Your task to perform on an android device: turn off improve location accuracy Image 0: 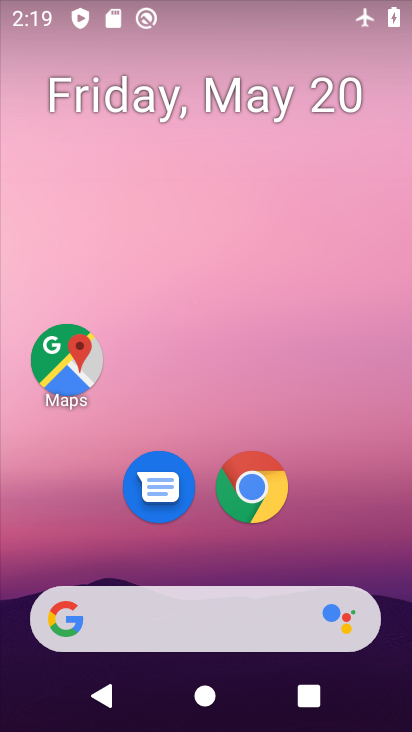
Step 0: drag from (243, 441) to (150, 64)
Your task to perform on an android device: turn off improve location accuracy Image 1: 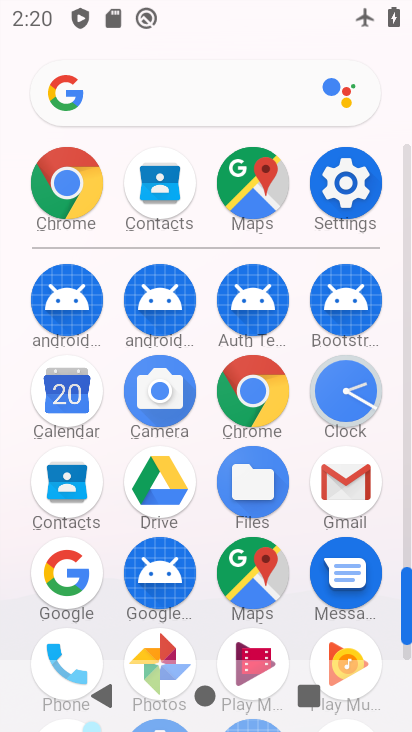
Step 1: click (335, 200)
Your task to perform on an android device: turn off improve location accuracy Image 2: 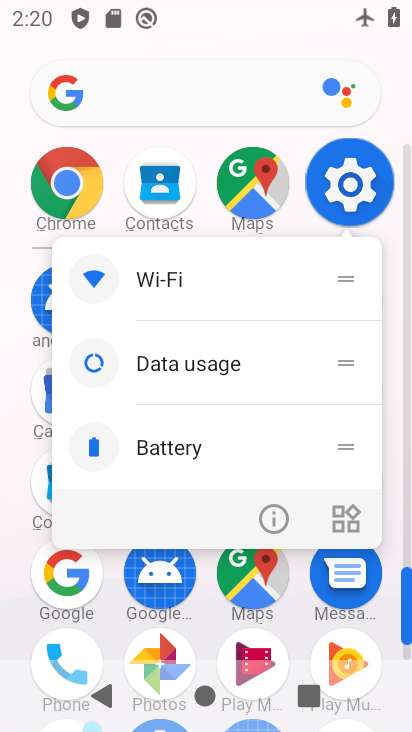
Step 2: click (340, 199)
Your task to perform on an android device: turn off improve location accuracy Image 3: 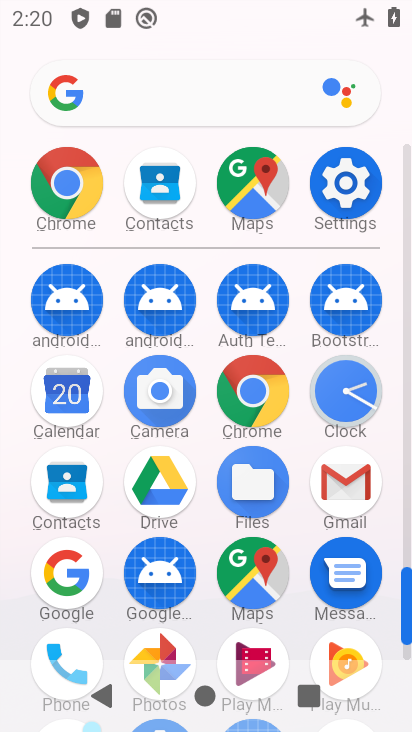
Step 3: click (337, 197)
Your task to perform on an android device: turn off improve location accuracy Image 4: 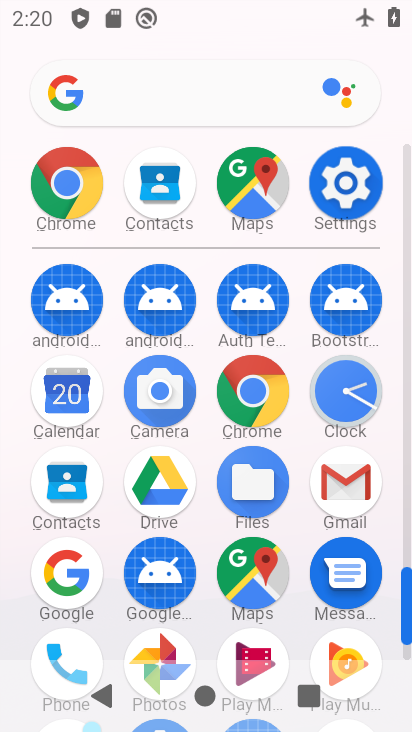
Step 4: click (335, 195)
Your task to perform on an android device: turn off improve location accuracy Image 5: 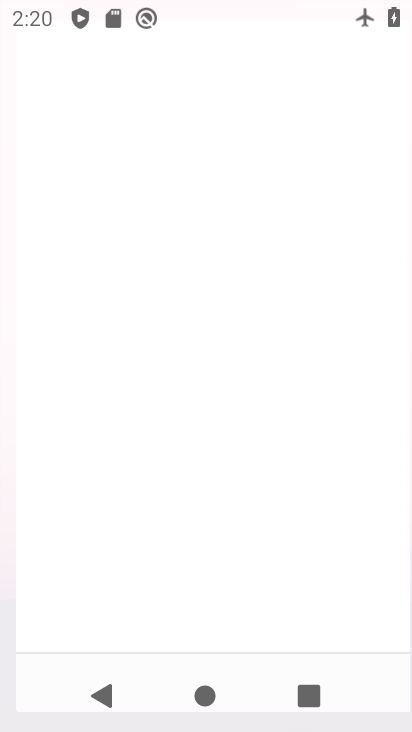
Step 5: click (335, 195)
Your task to perform on an android device: turn off improve location accuracy Image 6: 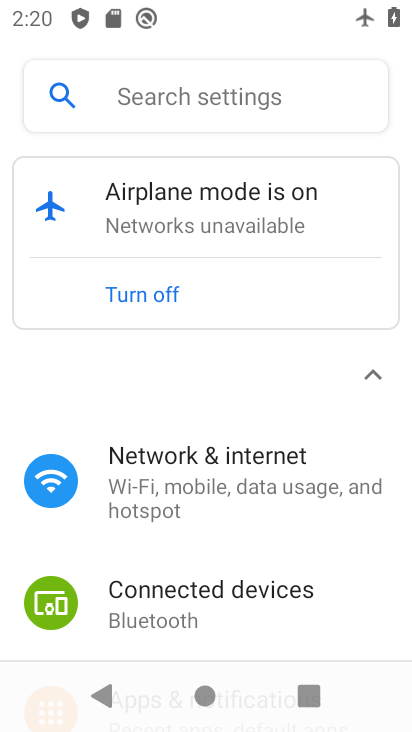
Step 6: drag from (222, 540) to (134, 30)
Your task to perform on an android device: turn off improve location accuracy Image 7: 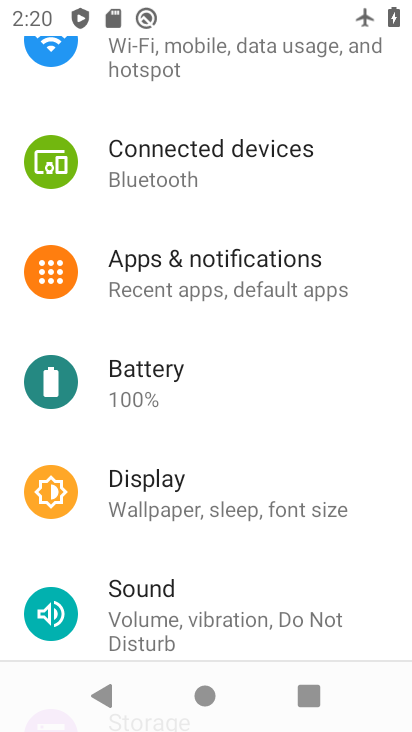
Step 7: drag from (196, 294) to (166, 14)
Your task to perform on an android device: turn off improve location accuracy Image 8: 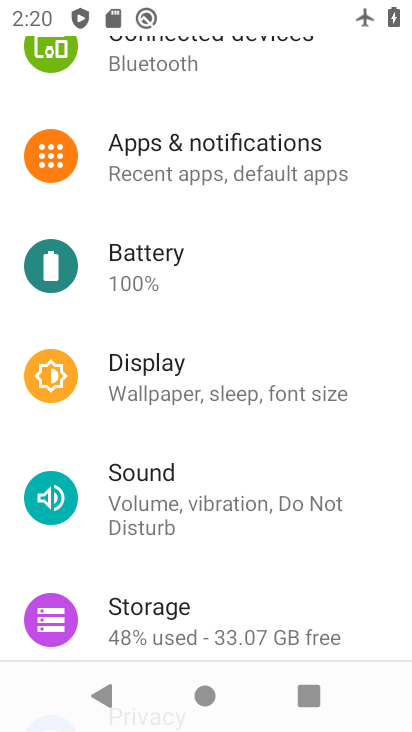
Step 8: drag from (59, 253) to (47, 178)
Your task to perform on an android device: turn off improve location accuracy Image 9: 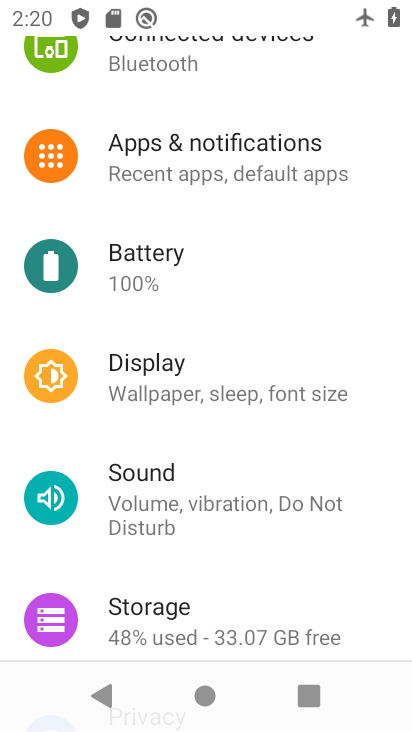
Step 9: drag from (212, 276) to (183, 21)
Your task to perform on an android device: turn off improve location accuracy Image 10: 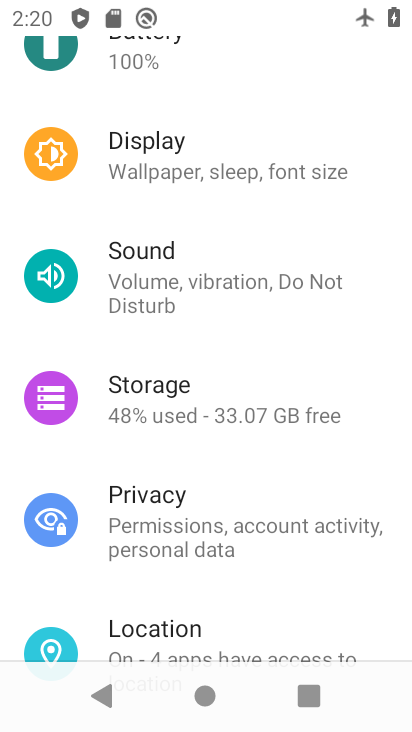
Step 10: drag from (266, 432) to (219, 197)
Your task to perform on an android device: turn off improve location accuracy Image 11: 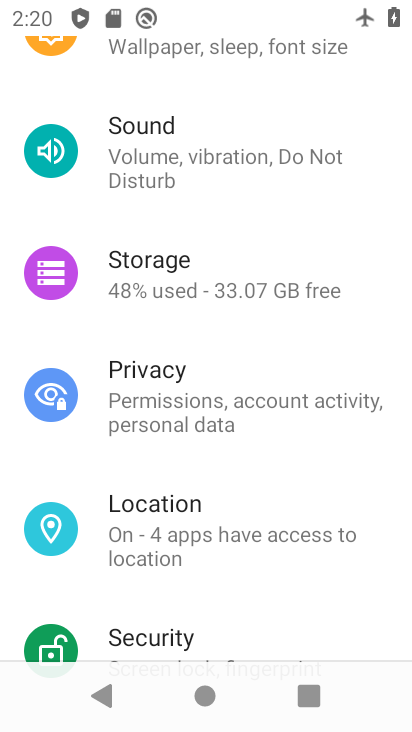
Step 11: drag from (246, 486) to (192, 53)
Your task to perform on an android device: turn off improve location accuracy Image 12: 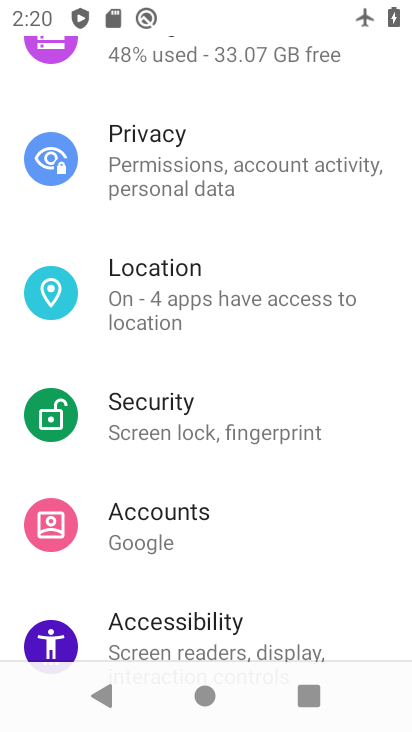
Step 12: drag from (165, 213) to (230, 486)
Your task to perform on an android device: turn off improve location accuracy Image 13: 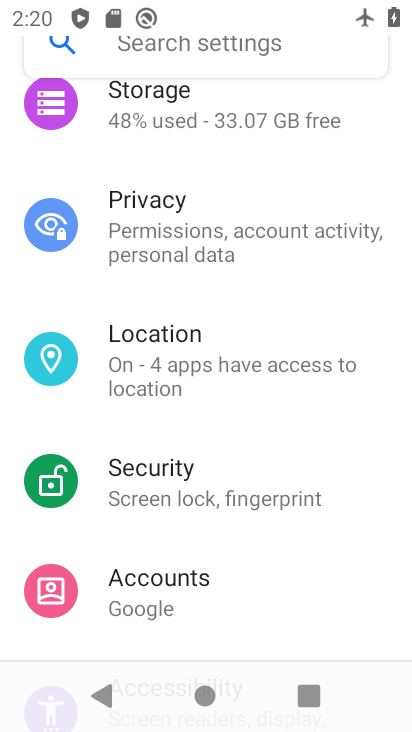
Step 13: drag from (200, 292) to (293, 637)
Your task to perform on an android device: turn off improve location accuracy Image 14: 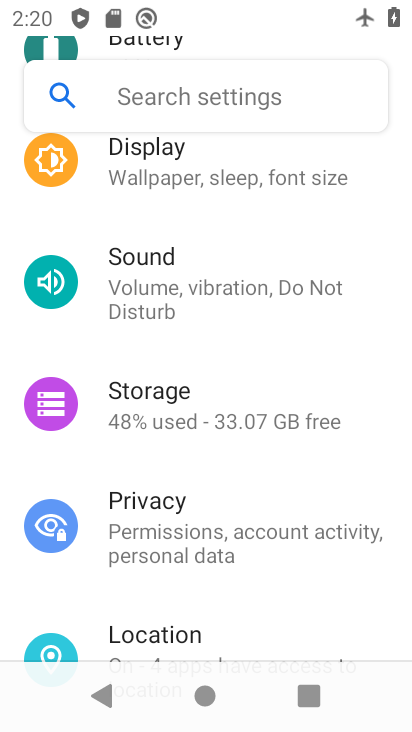
Step 14: drag from (157, 237) to (233, 627)
Your task to perform on an android device: turn off improve location accuracy Image 15: 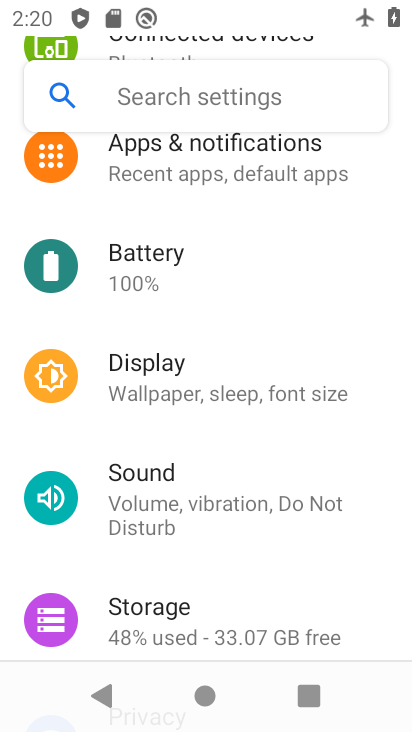
Step 15: drag from (161, 260) to (212, 505)
Your task to perform on an android device: turn off improve location accuracy Image 16: 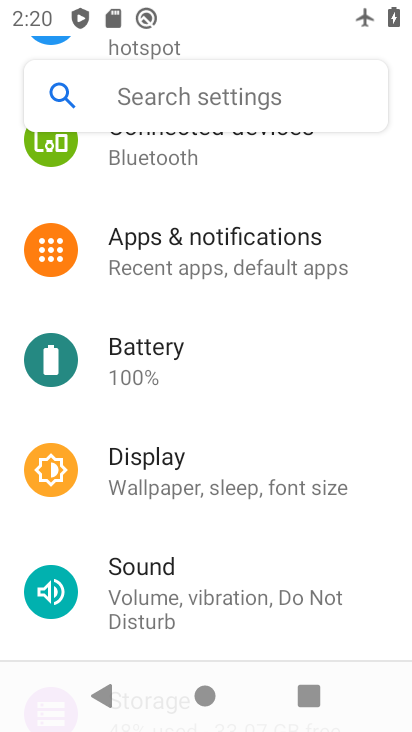
Step 16: drag from (189, 241) to (280, 603)
Your task to perform on an android device: turn off improve location accuracy Image 17: 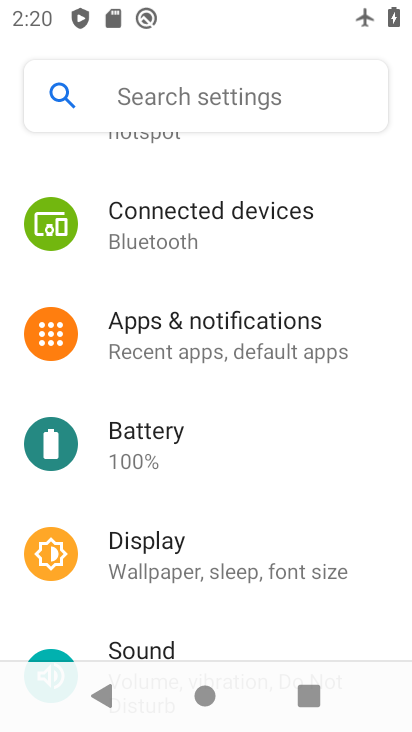
Step 17: drag from (212, 195) to (255, 539)
Your task to perform on an android device: turn off improve location accuracy Image 18: 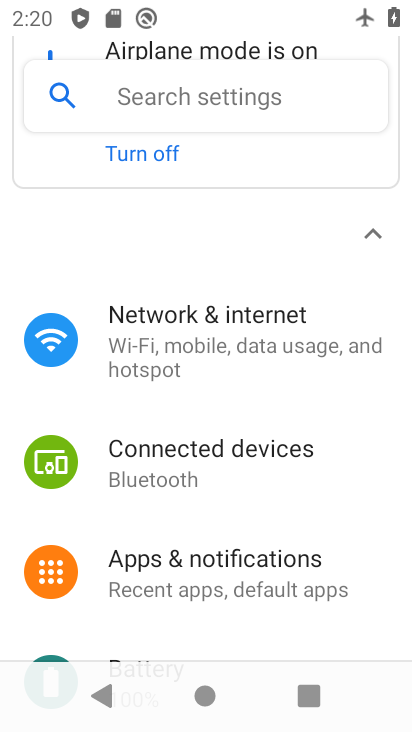
Step 18: drag from (197, 298) to (219, 540)
Your task to perform on an android device: turn off improve location accuracy Image 19: 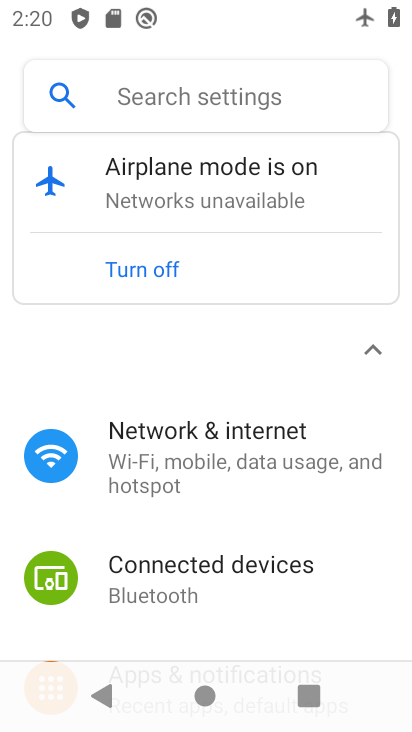
Step 19: drag from (95, 272) to (155, 524)
Your task to perform on an android device: turn off improve location accuracy Image 20: 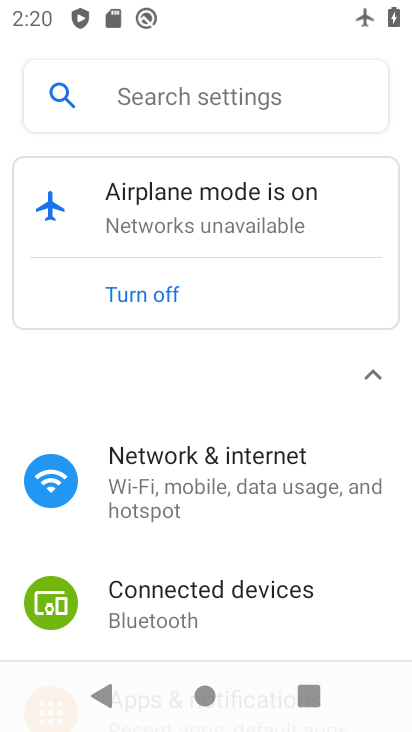
Step 20: drag from (185, 562) to (113, 91)
Your task to perform on an android device: turn off improve location accuracy Image 21: 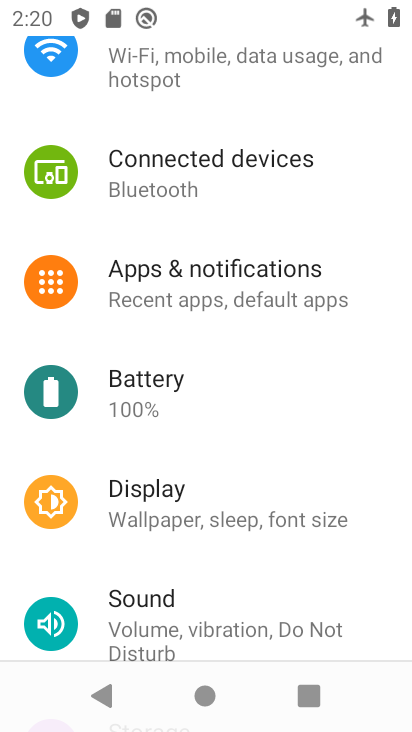
Step 21: drag from (187, 474) to (129, 32)
Your task to perform on an android device: turn off improve location accuracy Image 22: 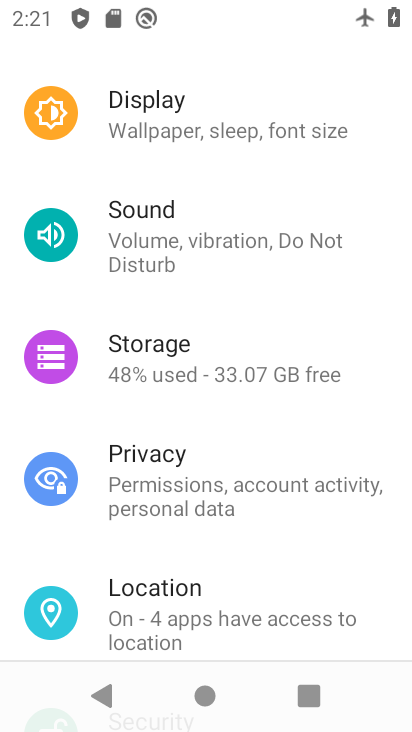
Step 22: click (164, 594)
Your task to perform on an android device: turn off improve location accuracy Image 23: 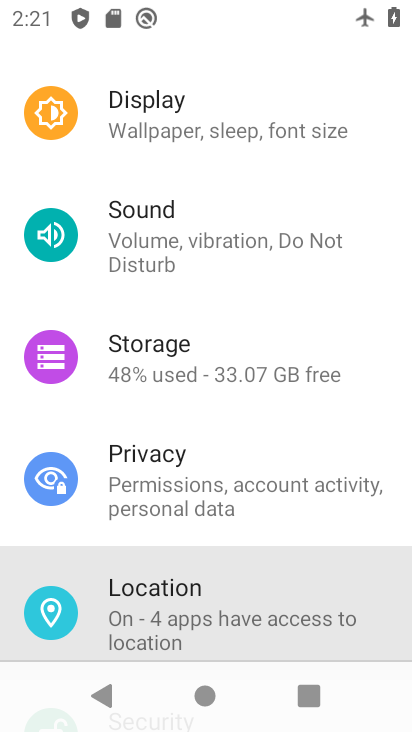
Step 23: click (164, 594)
Your task to perform on an android device: turn off improve location accuracy Image 24: 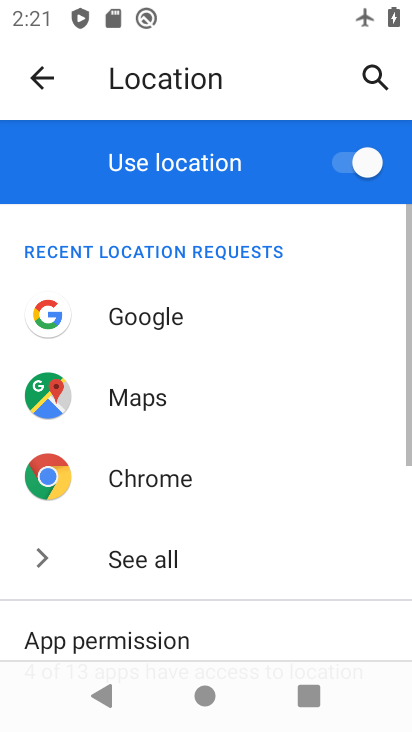
Step 24: drag from (203, 530) to (170, 162)
Your task to perform on an android device: turn off improve location accuracy Image 25: 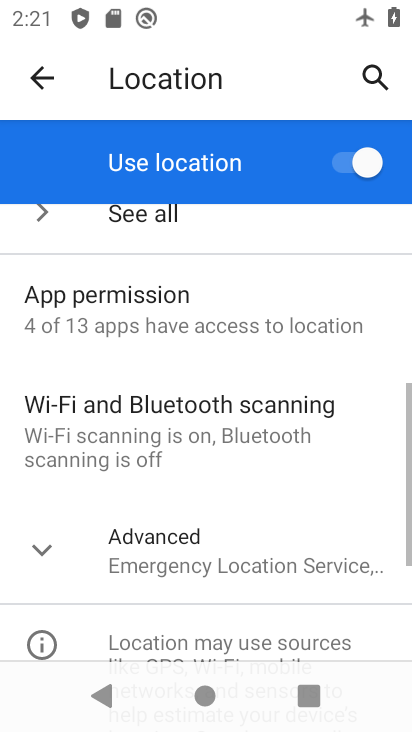
Step 25: drag from (199, 448) to (171, 86)
Your task to perform on an android device: turn off improve location accuracy Image 26: 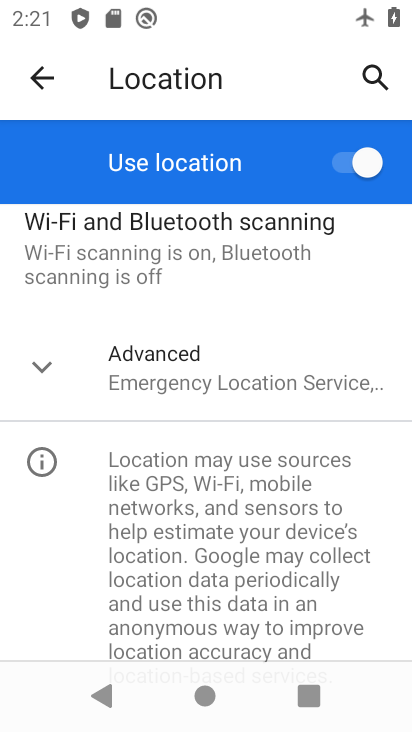
Step 26: drag from (204, 261) to (256, 446)
Your task to perform on an android device: turn off improve location accuracy Image 27: 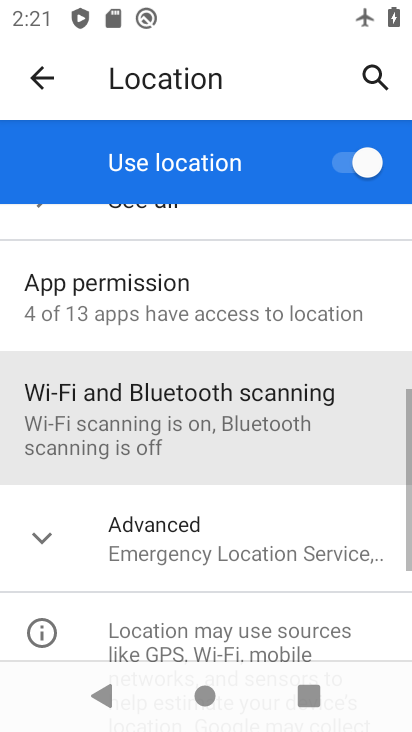
Step 27: drag from (175, 260) to (175, 433)
Your task to perform on an android device: turn off improve location accuracy Image 28: 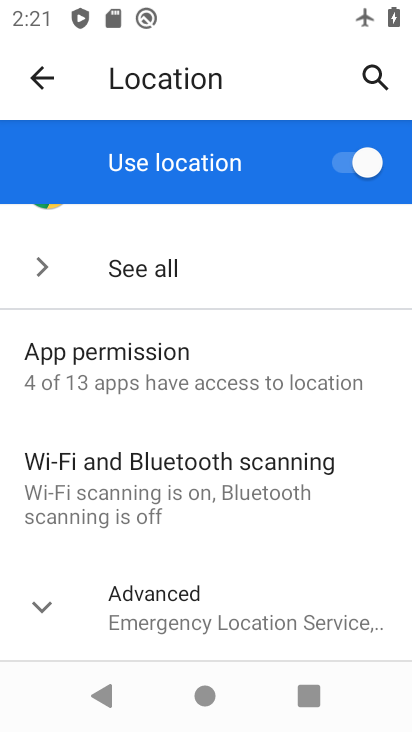
Step 28: drag from (187, 515) to (164, 132)
Your task to perform on an android device: turn off improve location accuracy Image 29: 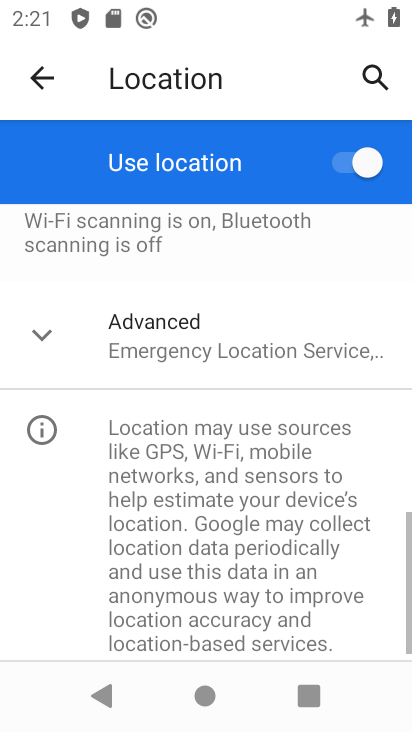
Step 29: drag from (246, 423) to (236, 60)
Your task to perform on an android device: turn off improve location accuracy Image 30: 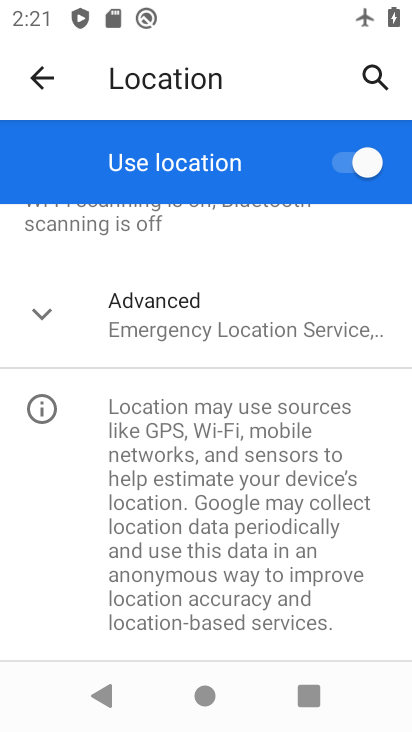
Step 30: click (168, 330)
Your task to perform on an android device: turn off improve location accuracy Image 31: 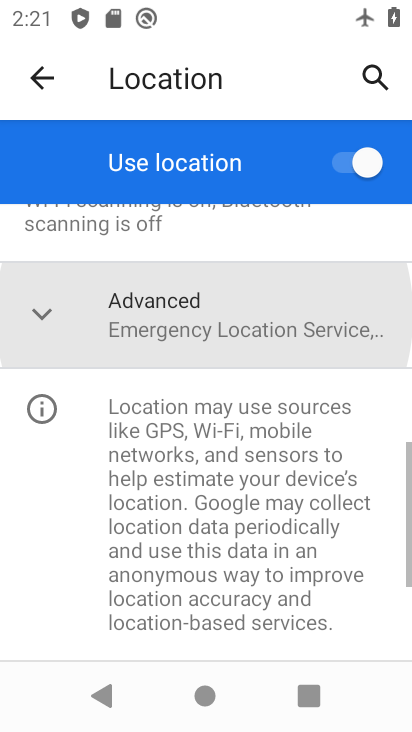
Step 31: click (178, 329)
Your task to perform on an android device: turn off improve location accuracy Image 32: 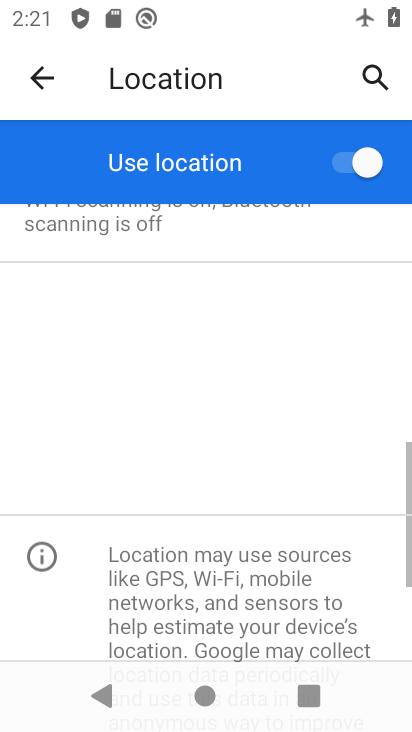
Step 32: click (178, 330)
Your task to perform on an android device: turn off improve location accuracy Image 33: 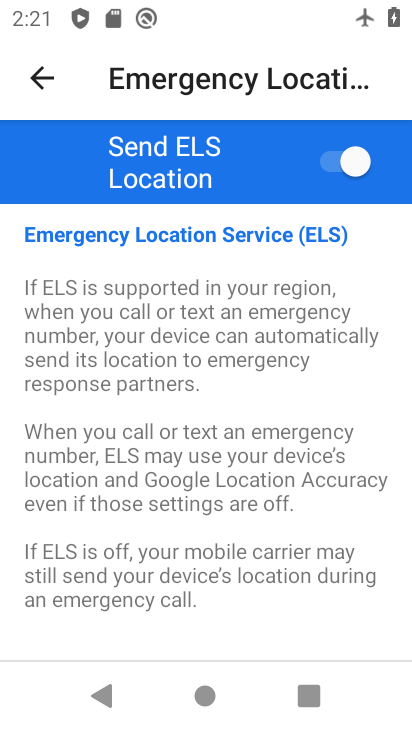
Step 33: click (35, 75)
Your task to perform on an android device: turn off improve location accuracy Image 34: 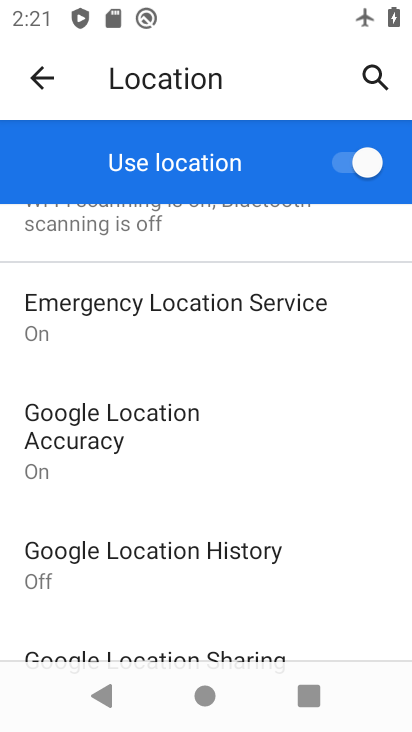
Step 34: click (84, 422)
Your task to perform on an android device: turn off improve location accuracy Image 35: 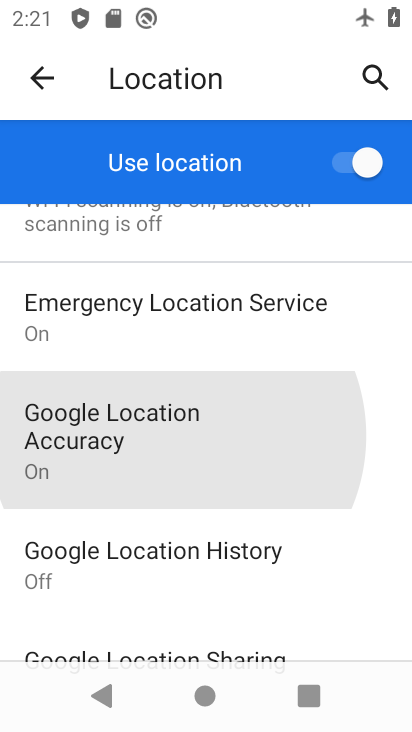
Step 35: click (84, 423)
Your task to perform on an android device: turn off improve location accuracy Image 36: 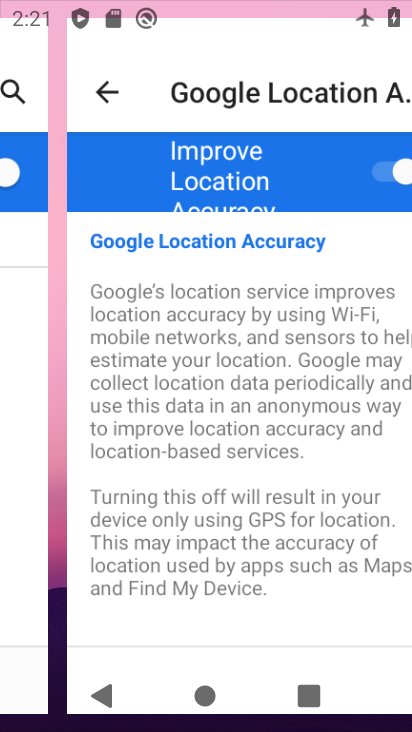
Step 36: click (84, 423)
Your task to perform on an android device: turn off improve location accuracy Image 37: 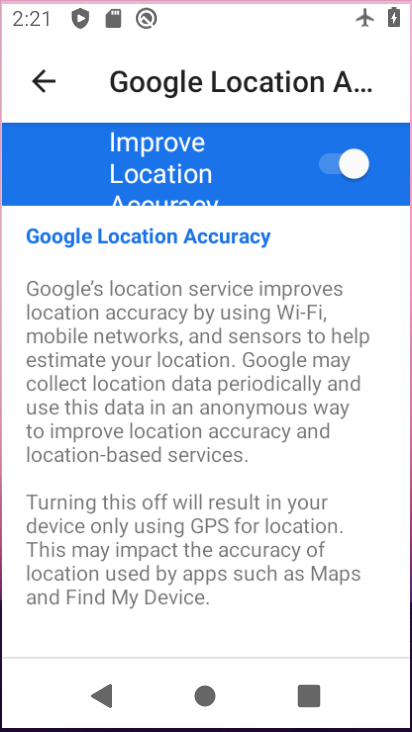
Step 37: click (84, 423)
Your task to perform on an android device: turn off improve location accuracy Image 38: 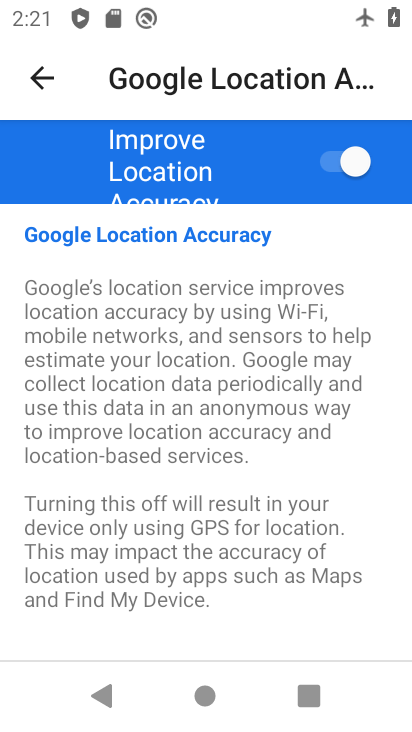
Step 38: click (353, 167)
Your task to perform on an android device: turn off improve location accuracy Image 39: 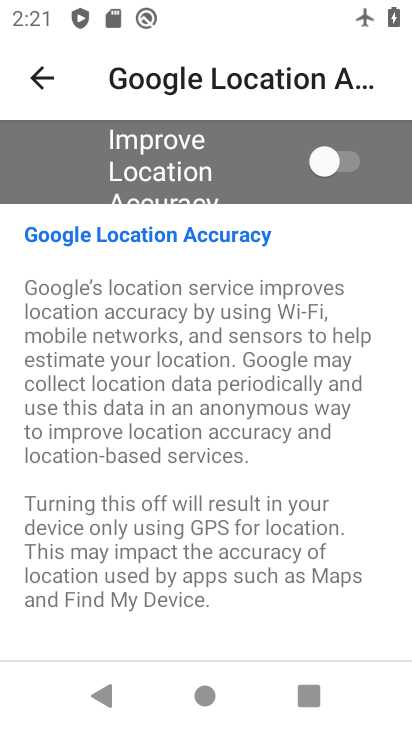
Step 39: task complete